Your task to perform on an android device: open the mobile data screen to see how much data has been used Image 0: 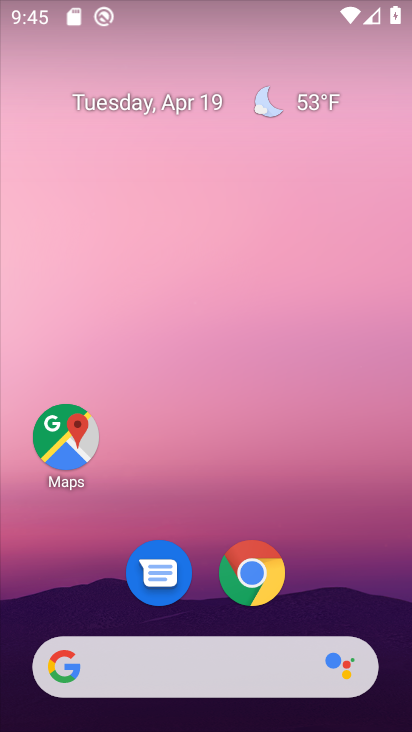
Step 0: drag from (204, 527) to (262, 60)
Your task to perform on an android device: open the mobile data screen to see how much data has been used Image 1: 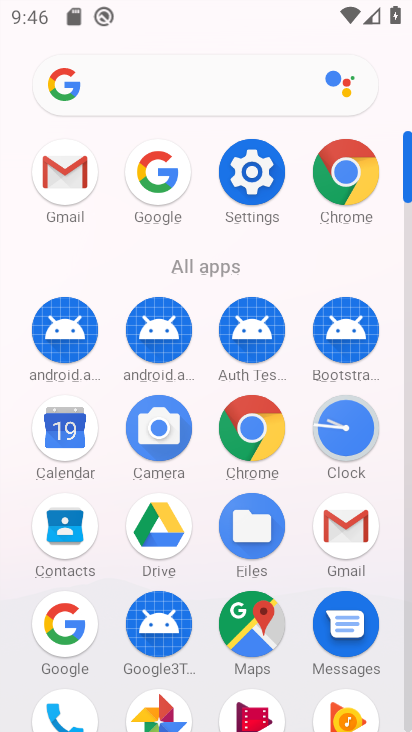
Step 1: click (248, 164)
Your task to perform on an android device: open the mobile data screen to see how much data has been used Image 2: 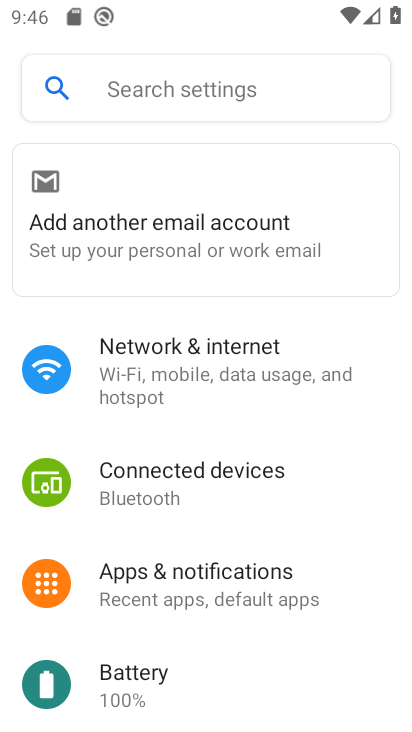
Step 2: click (184, 374)
Your task to perform on an android device: open the mobile data screen to see how much data has been used Image 3: 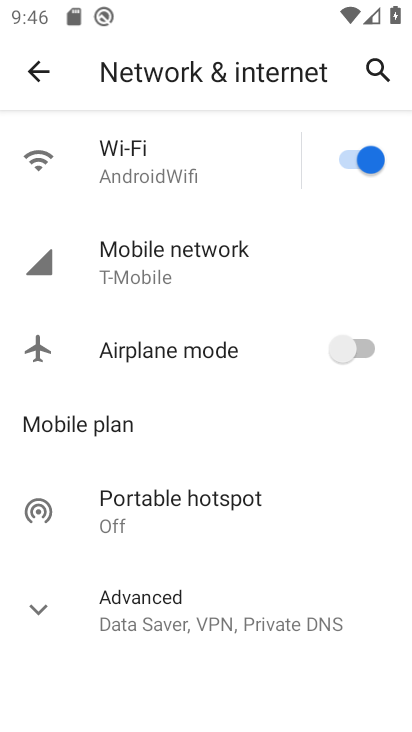
Step 3: click (187, 264)
Your task to perform on an android device: open the mobile data screen to see how much data has been used Image 4: 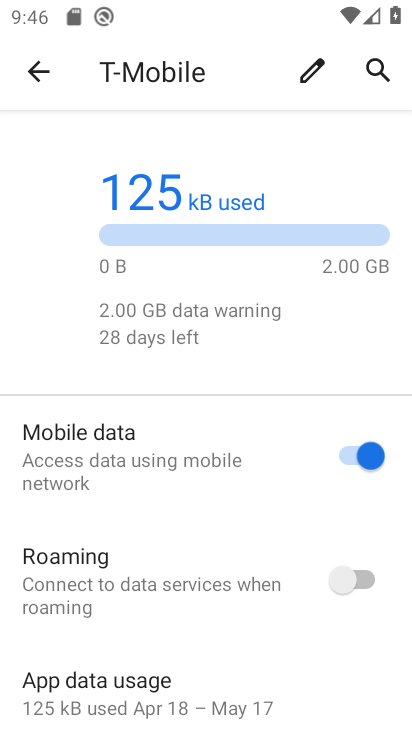
Step 4: click (186, 684)
Your task to perform on an android device: open the mobile data screen to see how much data has been used Image 5: 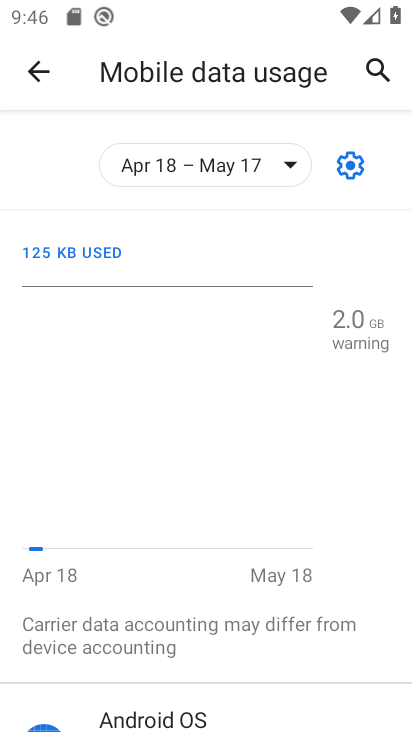
Step 5: click (230, 679)
Your task to perform on an android device: open the mobile data screen to see how much data has been used Image 6: 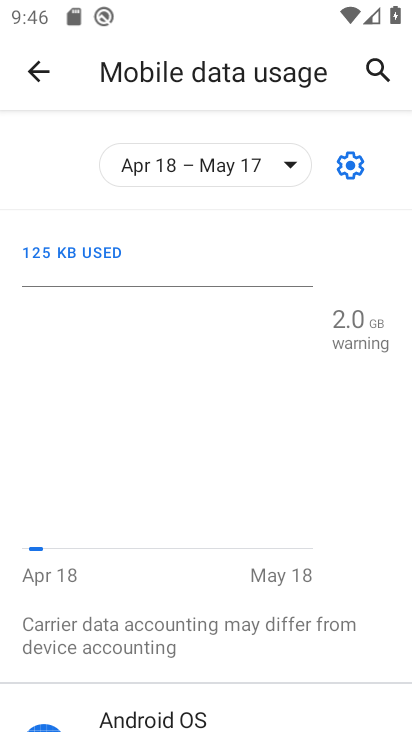
Step 6: task complete